Your task to perform on an android device: Do I have any events today? Image 0: 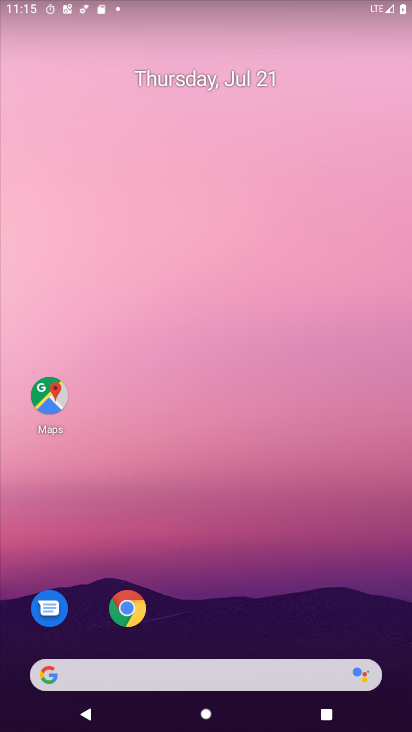
Step 0: click (404, 535)
Your task to perform on an android device: Do I have any events today? Image 1: 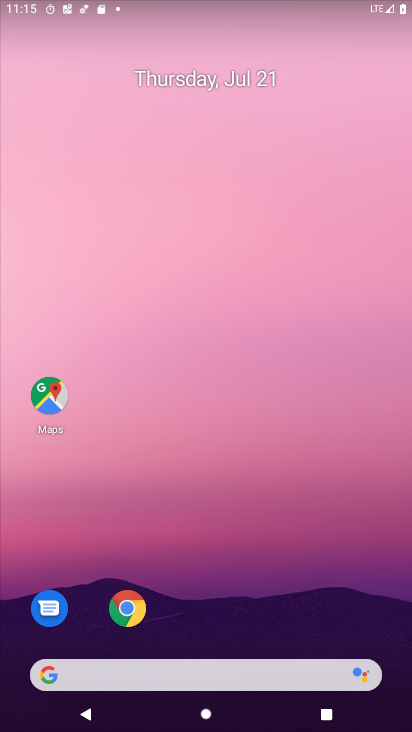
Step 1: drag from (161, 653) to (243, 222)
Your task to perform on an android device: Do I have any events today? Image 2: 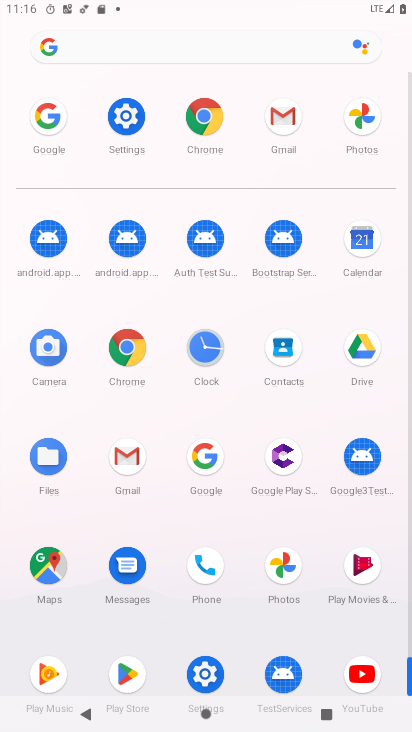
Step 2: click (353, 260)
Your task to perform on an android device: Do I have any events today? Image 3: 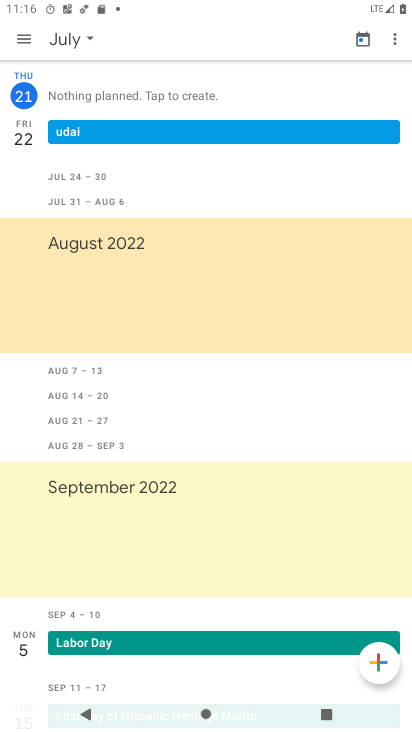
Step 3: task complete